Your task to perform on an android device: Search for Italian restaurants on Maps Image 0: 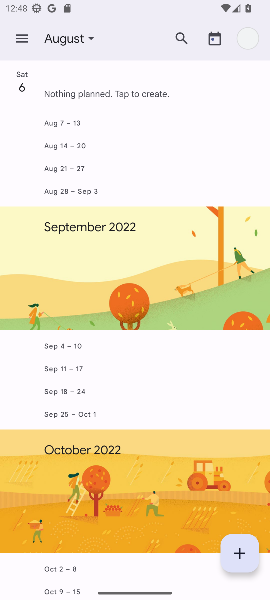
Step 0: press home button
Your task to perform on an android device: Search for Italian restaurants on Maps Image 1: 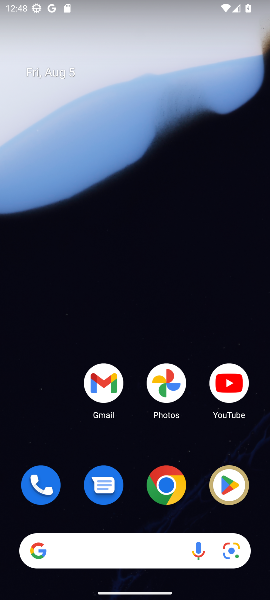
Step 1: drag from (46, 419) to (77, 73)
Your task to perform on an android device: Search for Italian restaurants on Maps Image 2: 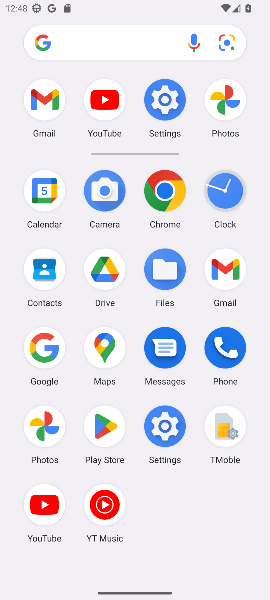
Step 2: click (103, 339)
Your task to perform on an android device: Search for Italian restaurants on Maps Image 3: 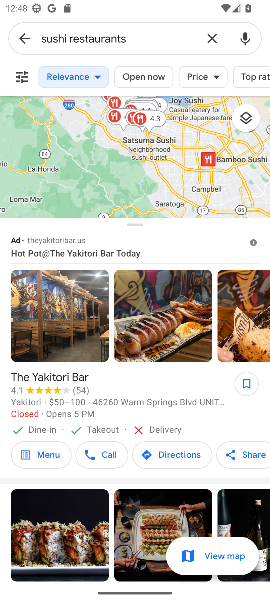
Step 3: click (214, 37)
Your task to perform on an android device: Search for Italian restaurants on Maps Image 4: 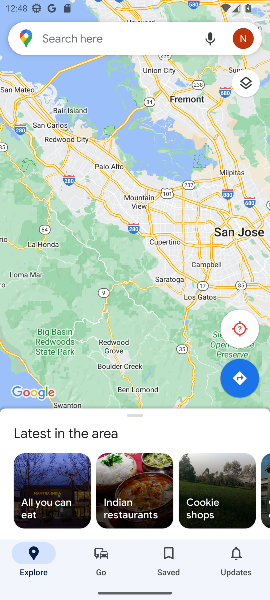
Step 4: click (126, 35)
Your task to perform on an android device: Search for Italian restaurants on Maps Image 5: 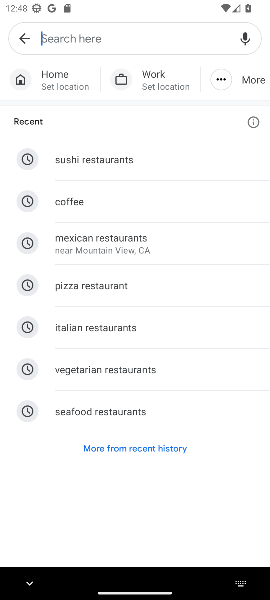
Step 5: click (84, 319)
Your task to perform on an android device: Search for Italian restaurants on Maps Image 6: 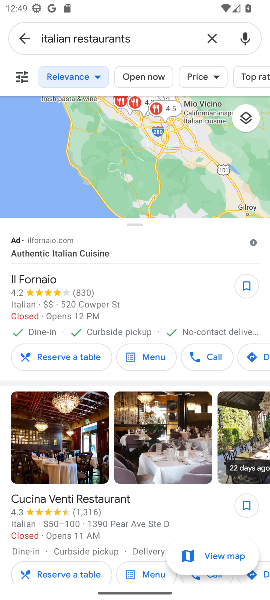
Step 6: task complete